Your task to perform on an android device: Go to privacy settings Image 0: 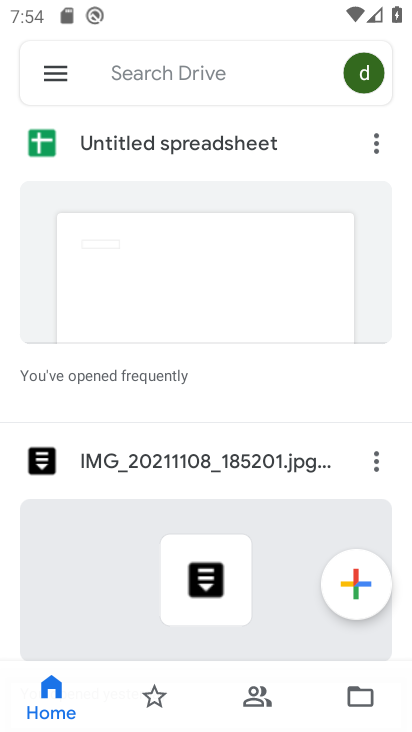
Step 0: press home button
Your task to perform on an android device: Go to privacy settings Image 1: 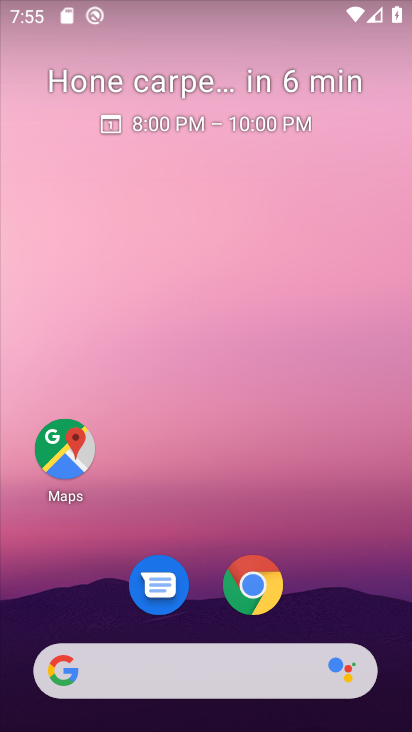
Step 1: drag from (197, 562) to (216, 54)
Your task to perform on an android device: Go to privacy settings Image 2: 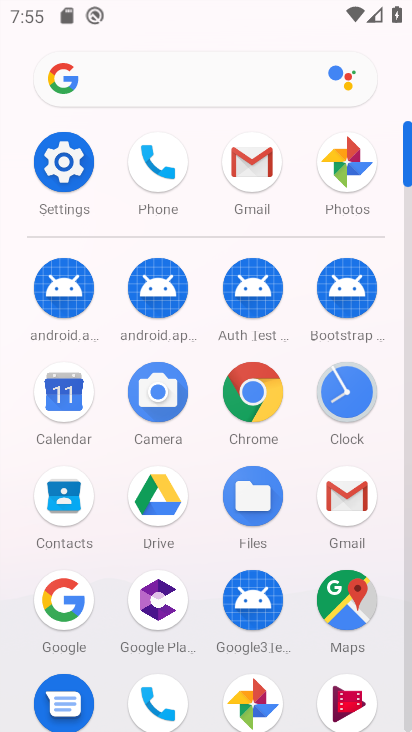
Step 2: click (58, 162)
Your task to perform on an android device: Go to privacy settings Image 3: 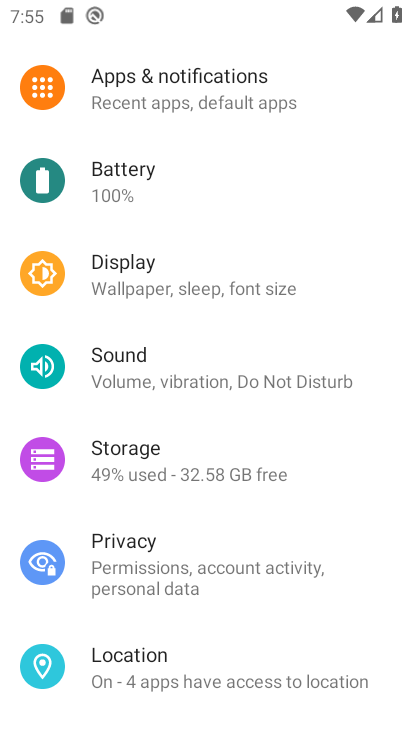
Step 3: click (231, 565)
Your task to perform on an android device: Go to privacy settings Image 4: 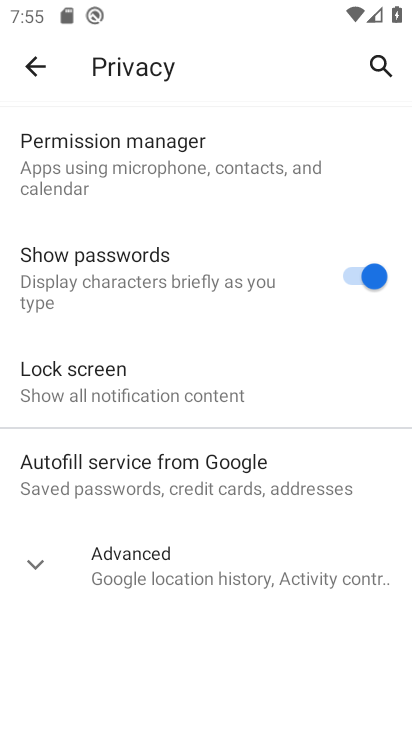
Step 4: task complete